Your task to perform on an android device: open wifi settings Image 0: 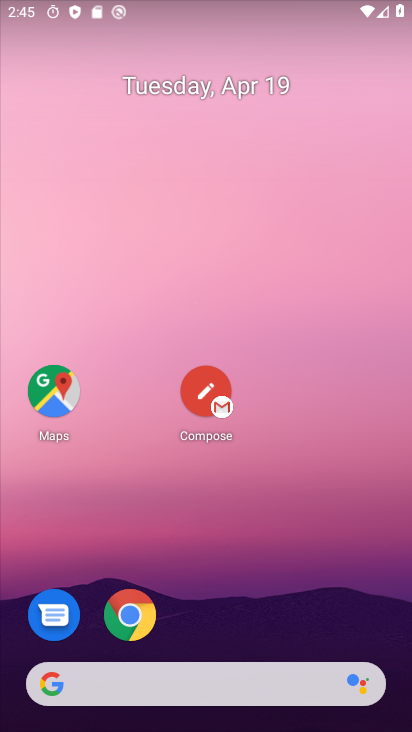
Step 0: drag from (121, 500) to (60, 14)
Your task to perform on an android device: open wifi settings Image 1: 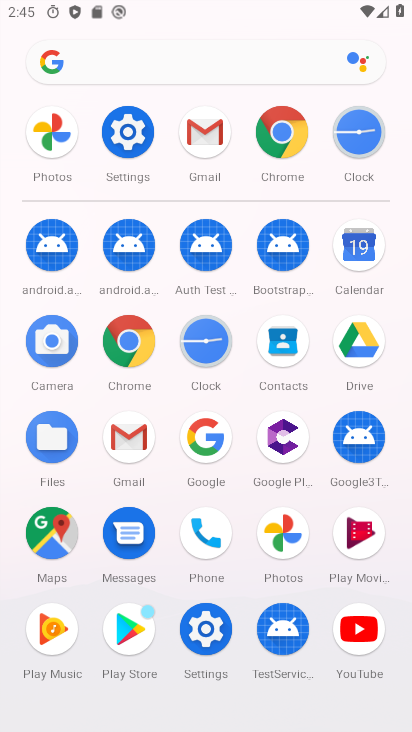
Step 1: click (109, 126)
Your task to perform on an android device: open wifi settings Image 2: 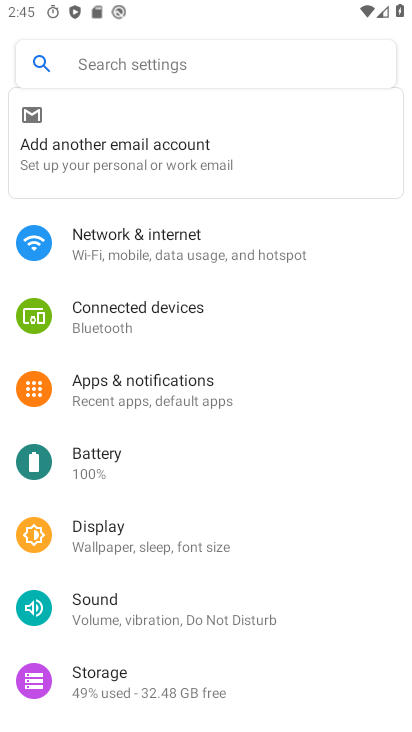
Step 2: click (205, 250)
Your task to perform on an android device: open wifi settings Image 3: 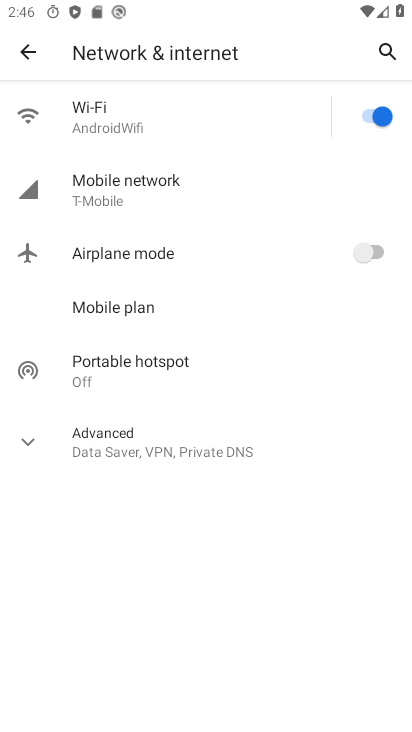
Step 3: click (145, 117)
Your task to perform on an android device: open wifi settings Image 4: 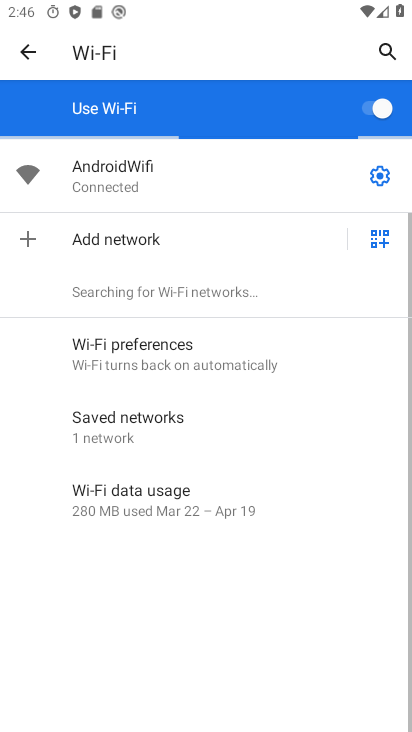
Step 4: task complete